Your task to perform on an android device: visit the assistant section in the google photos Image 0: 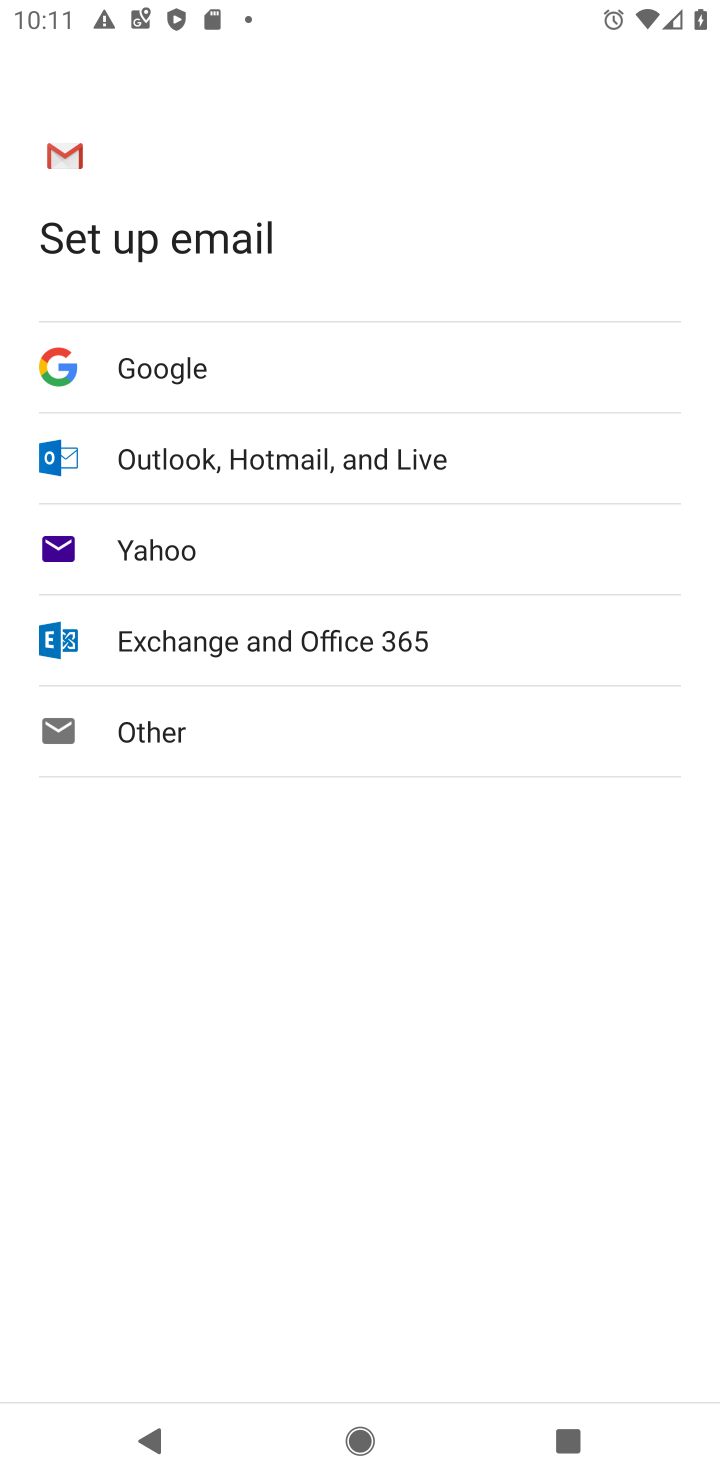
Step 0: press home button
Your task to perform on an android device: visit the assistant section in the google photos Image 1: 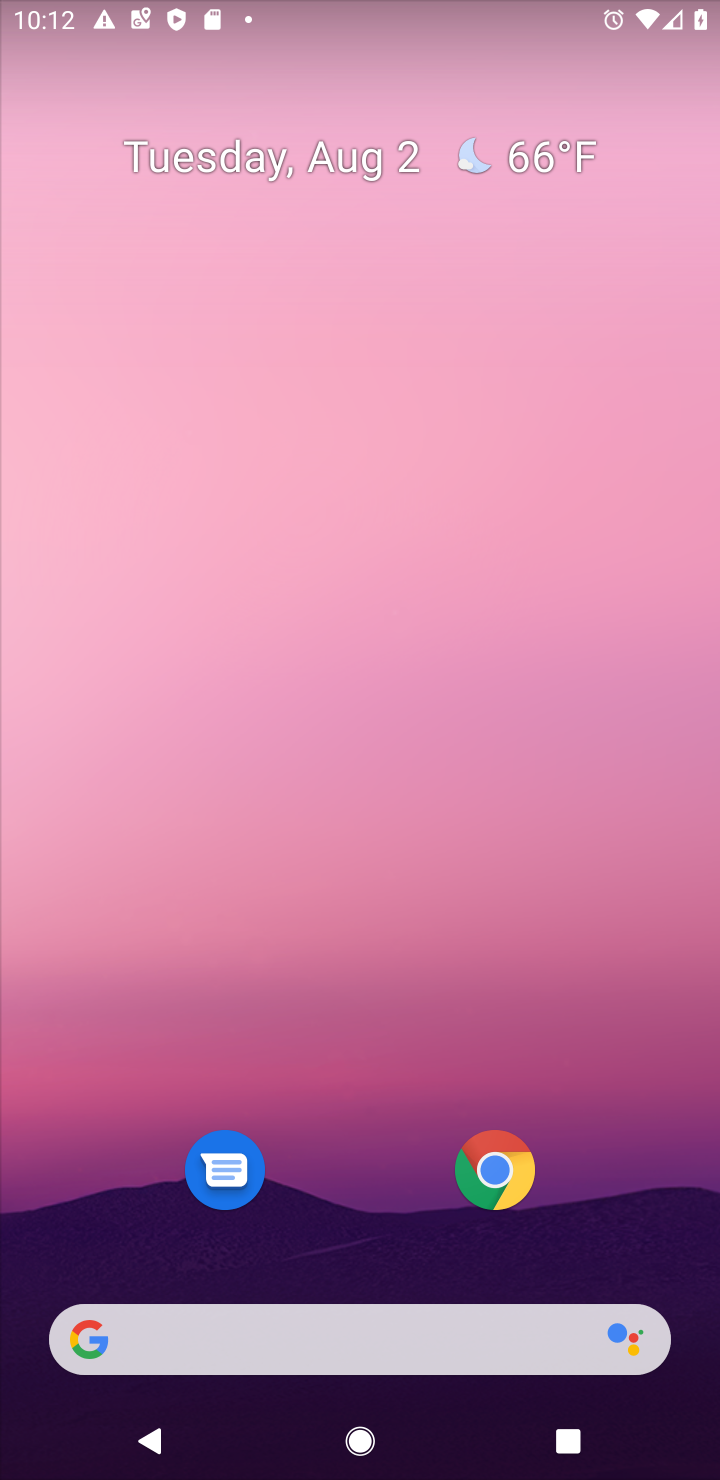
Step 1: drag from (350, 1092) to (490, 19)
Your task to perform on an android device: visit the assistant section in the google photos Image 2: 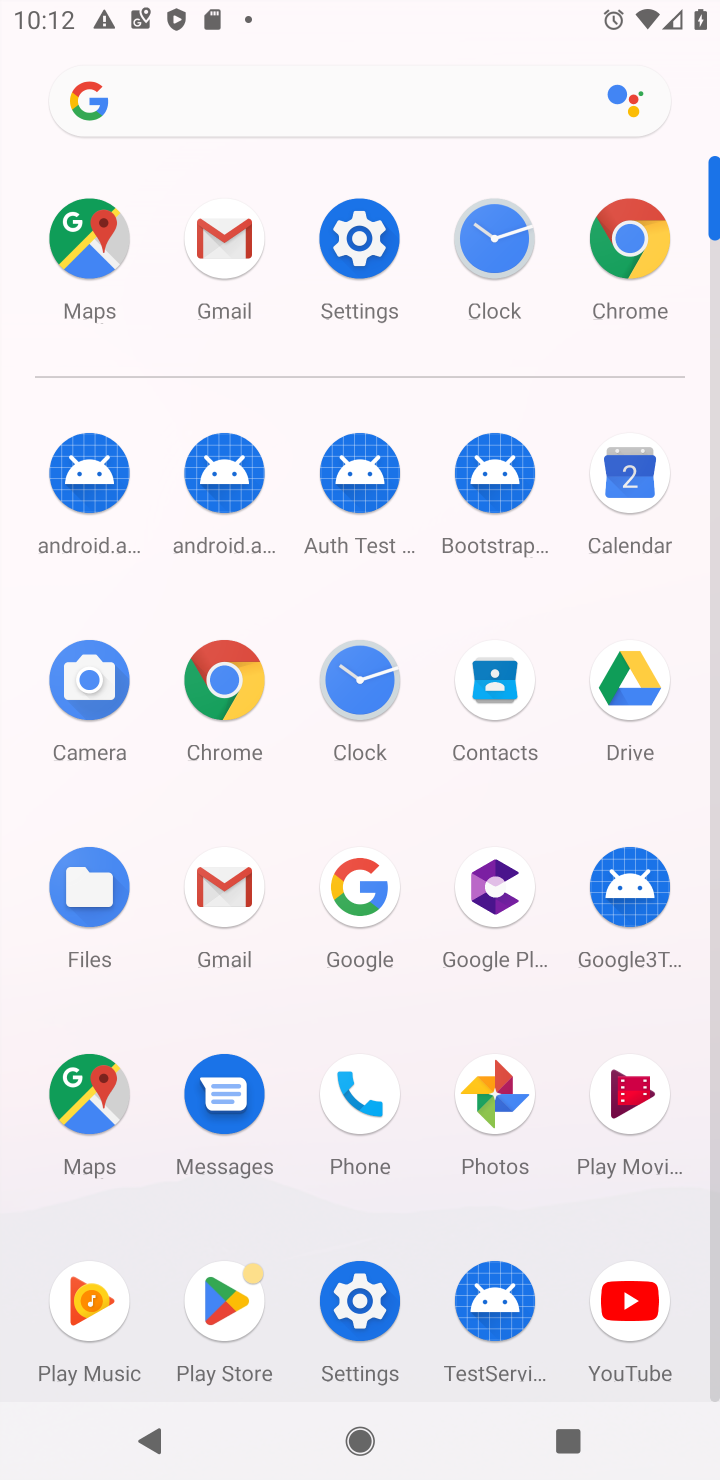
Step 2: click (478, 1116)
Your task to perform on an android device: visit the assistant section in the google photos Image 3: 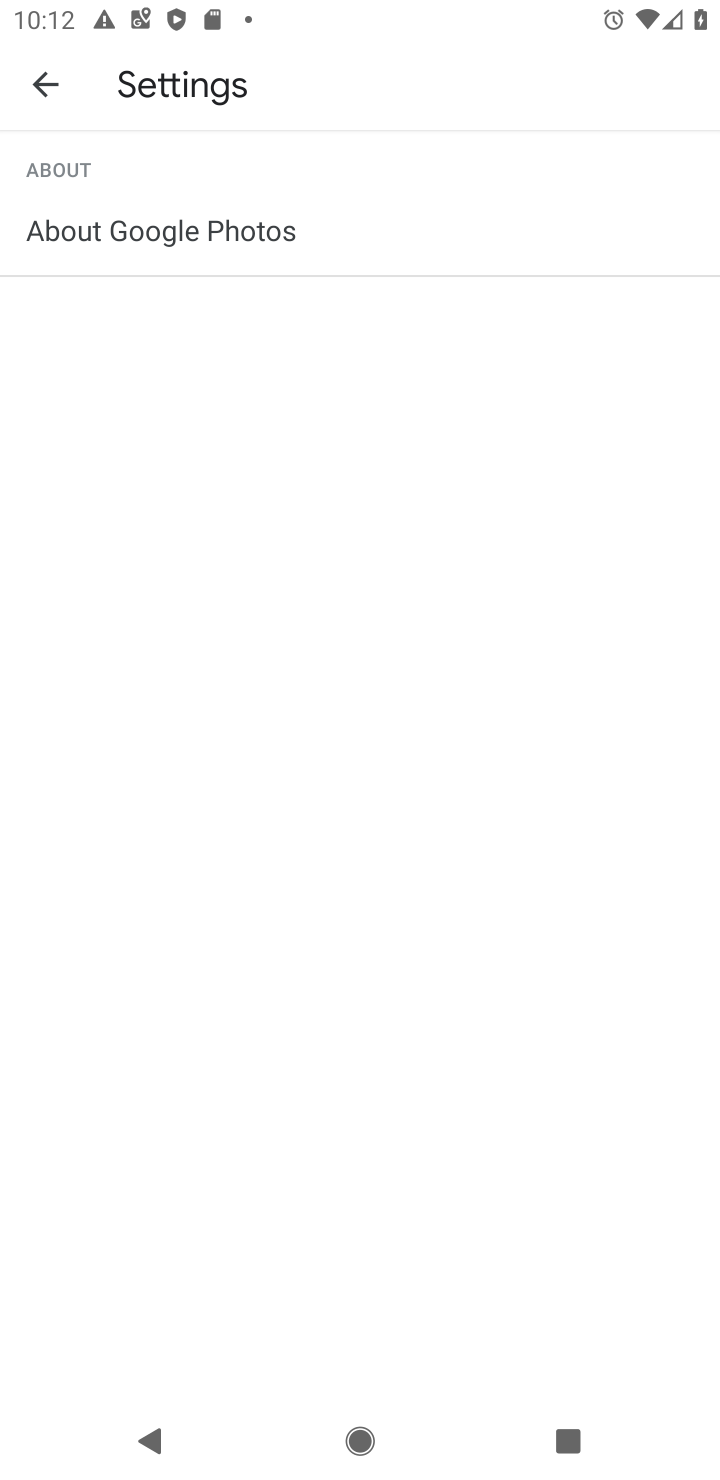
Step 3: click (51, 90)
Your task to perform on an android device: visit the assistant section in the google photos Image 4: 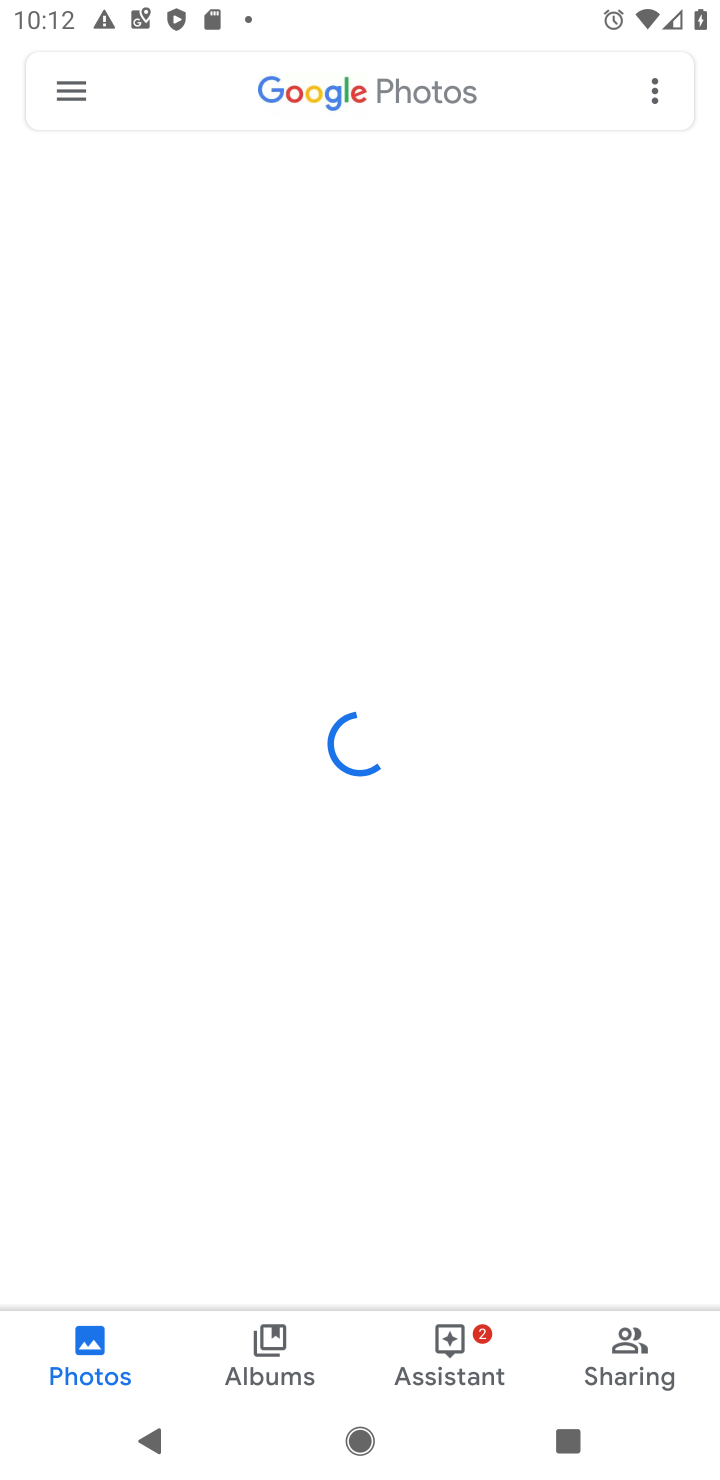
Step 4: click (452, 1354)
Your task to perform on an android device: visit the assistant section in the google photos Image 5: 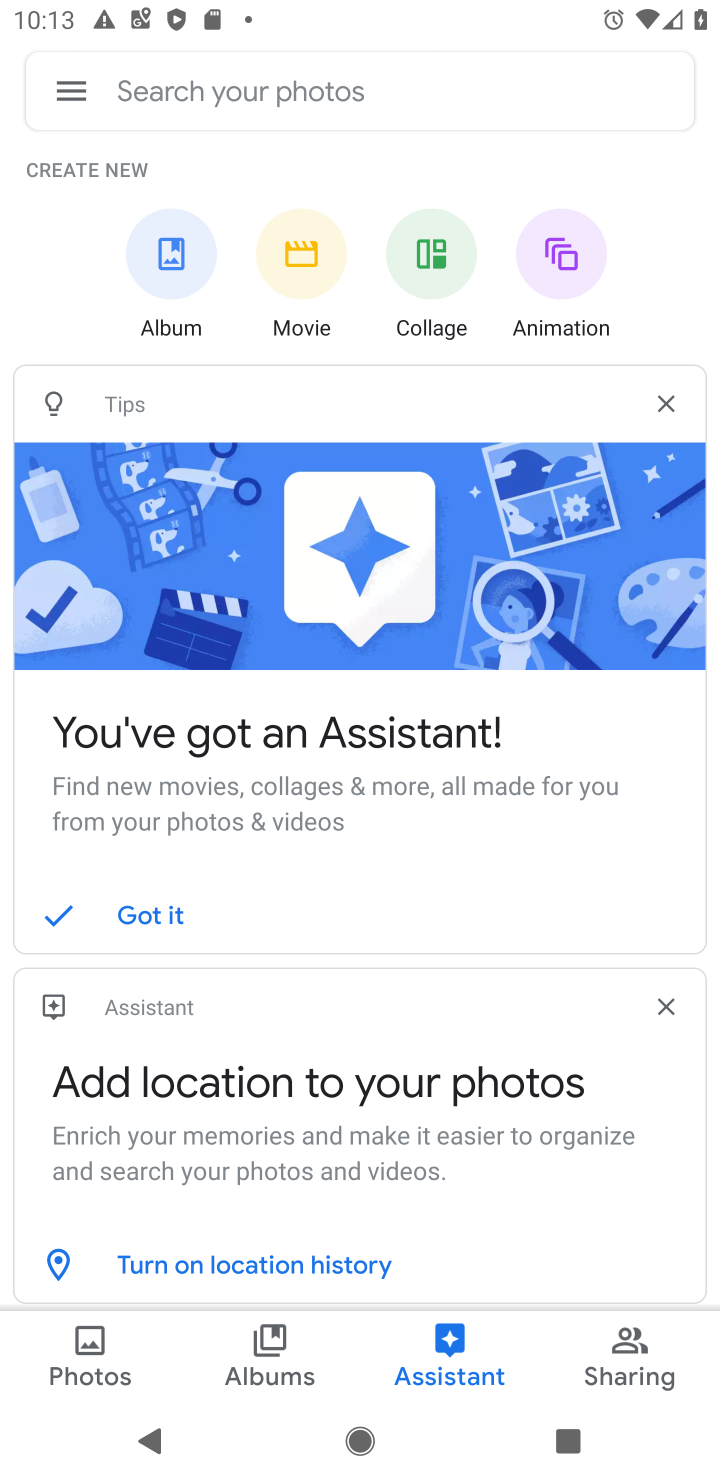
Step 5: task complete